Your task to perform on an android device: open chrome and create a bookmark for the current page Image 0: 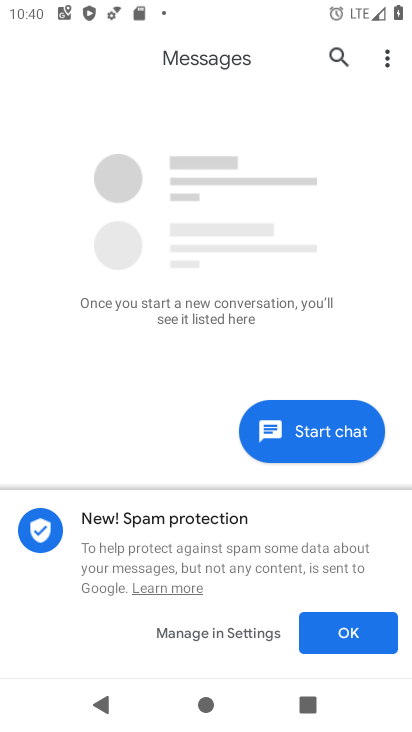
Step 0: press home button
Your task to perform on an android device: open chrome and create a bookmark for the current page Image 1: 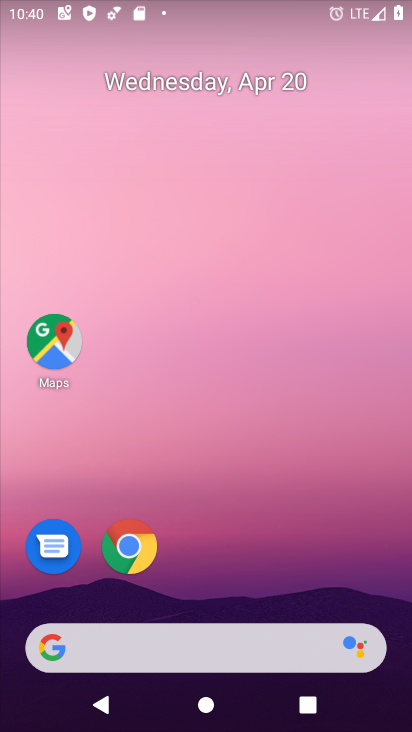
Step 1: drag from (222, 575) to (63, 38)
Your task to perform on an android device: open chrome and create a bookmark for the current page Image 2: 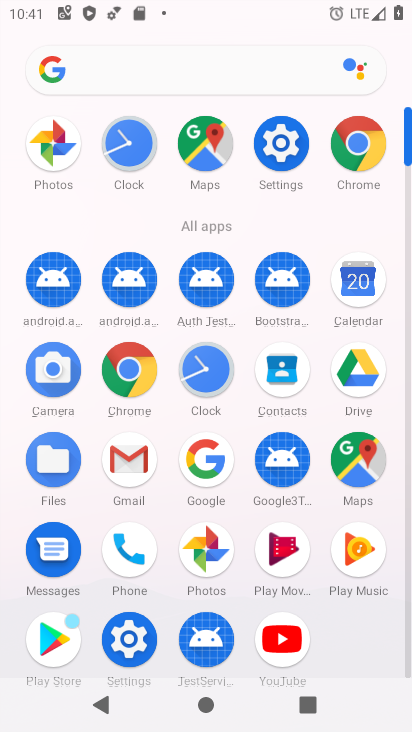
Step 2: click (368, 141)
Your task to perform on an android device: open chrome and create a bookmark for the current page Image 3: 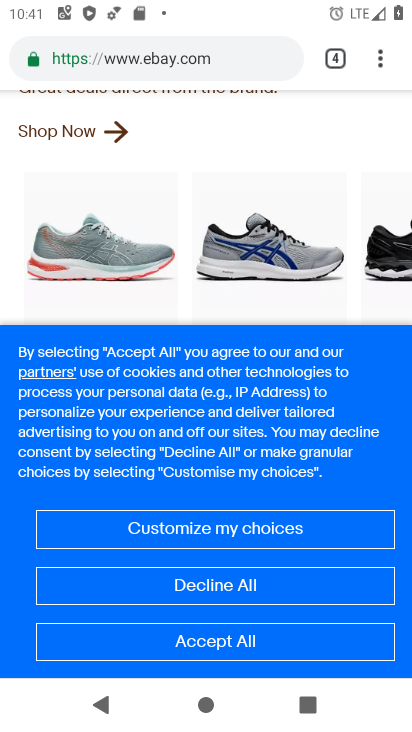
Step 3: click (381, 62)
Your task to perform on an android device: open chrome and create a bookmark for the current page Image 4: 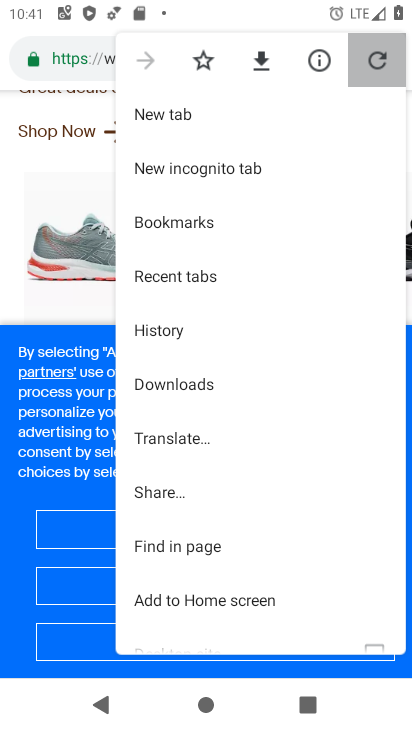
Step 4: task complete